Your task to perform on an android device: toggle pop-ups in chrome Image 0: 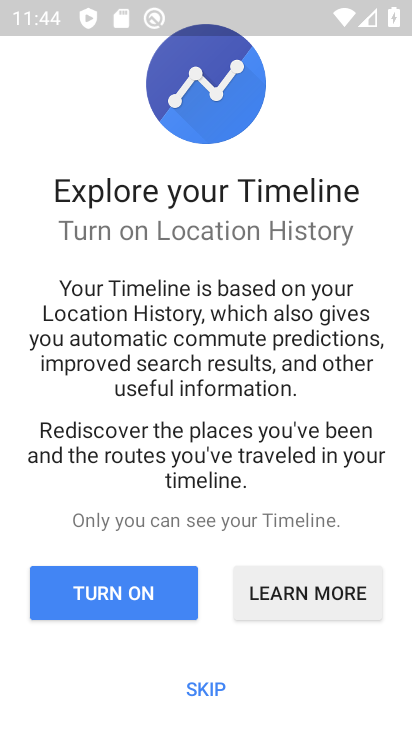
Step 0: press home button
Your task to perform on an android device: toggle pop-ups in chrome Image 1: 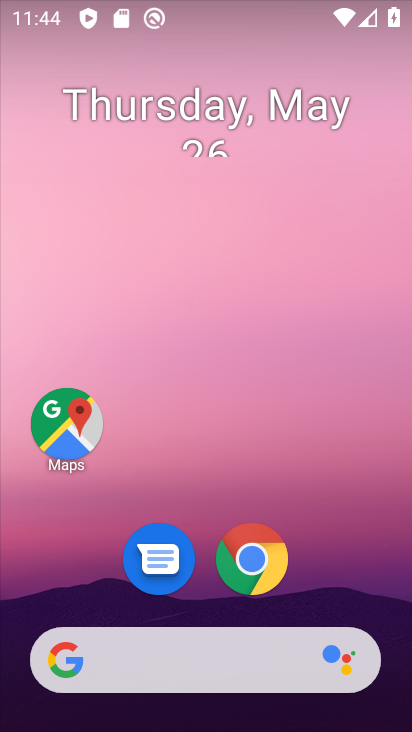
Step 1: click (244, 561)
Your task to perform on an android device: toggle pop-ups in chrome Image 2: 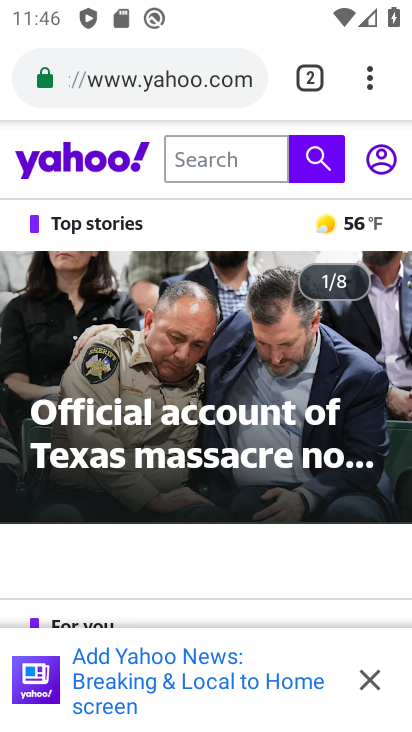
Step 2: click (369, 74)
Your task to perform on an android device: toggle pop-ups in chrome Image 3: 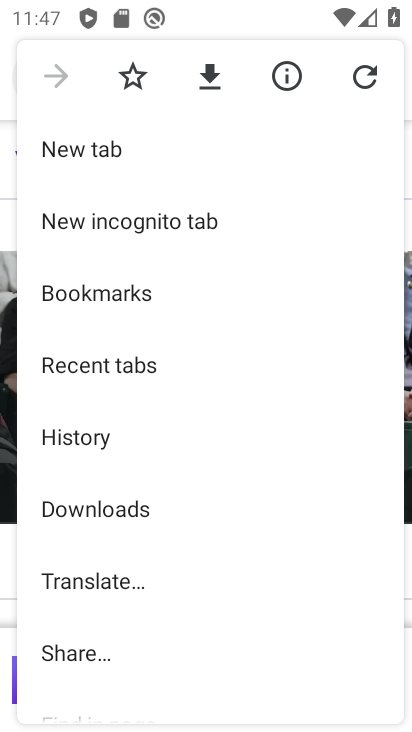
Step 3: drag from (146, 632) to (160, 256)
Your task to perform on an android device: toggle pop-ups in chrome Image 4: 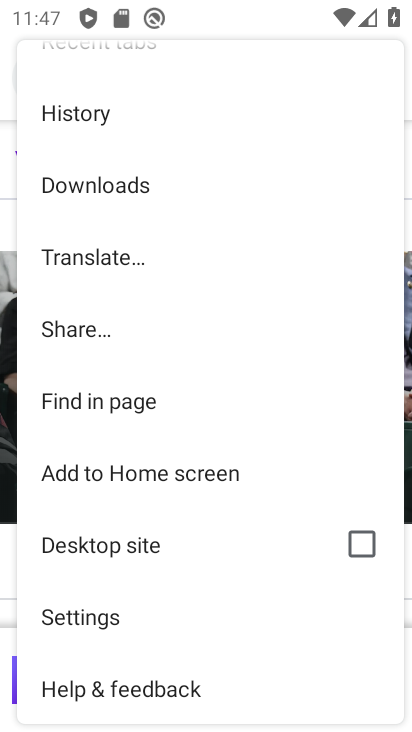
Step 4: drag from (119, 613) to (172, 223)
Your task to perform on an android device: toggle pop-ups in chrome Image 5: 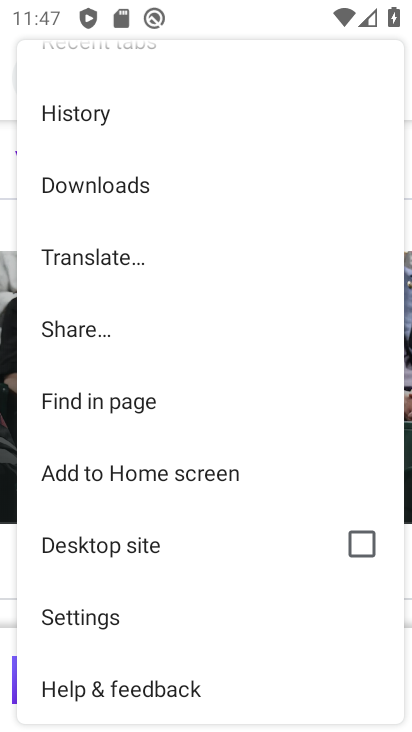
Step 5: click (125, 601)
Your task to perform on an android device: toggle pop-ups in chrome Image 6: 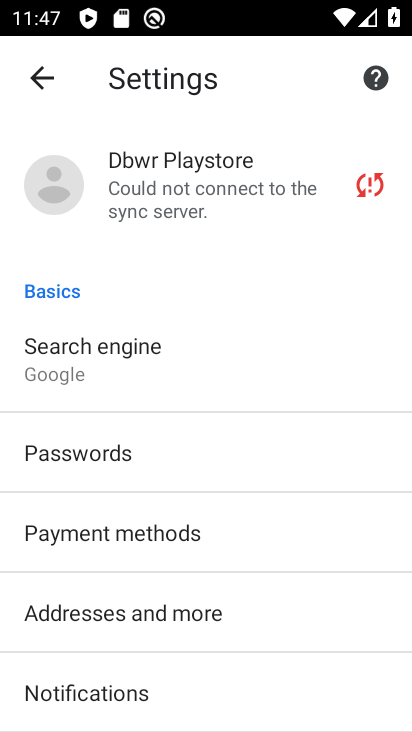
Step 6: drag from (258, 670) to (290, 260)
Your task to perform on an android device: toggle pop-ups in chrome Image 7: 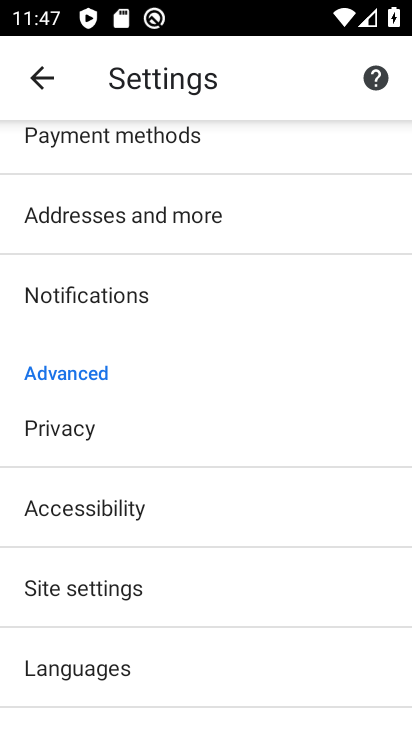
Step 7: click (170, 598)
Your task to perform on an android device: toggle pop-ups in chrome Image 8: 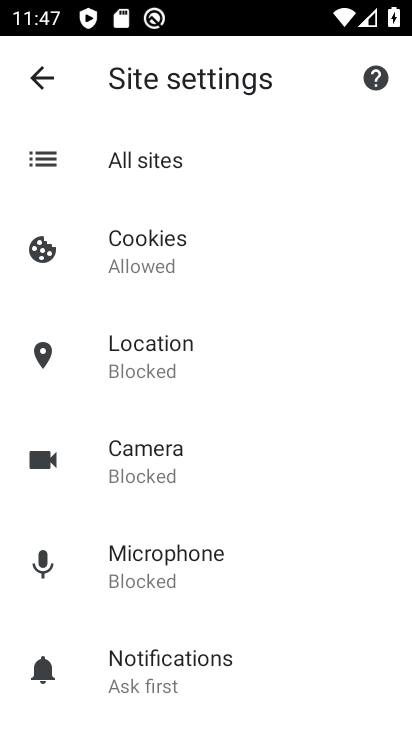
Step 8: drag from (247, 614) to (264, 205)
Your task to perform on an android device: toggle pop-ups in chrome Image 9: 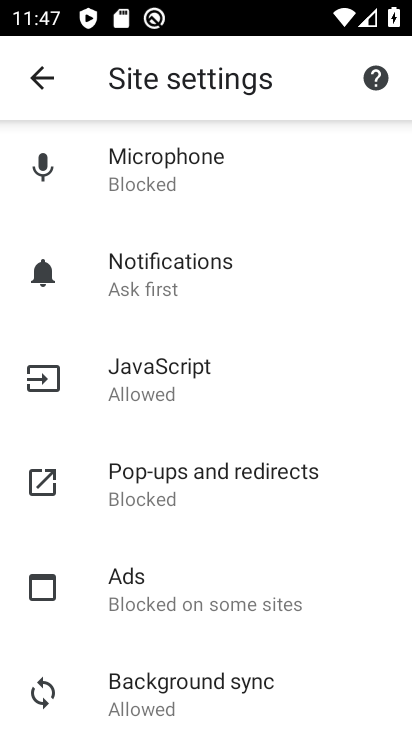
Step 9: click (204, 467)
Your task to perform on an android device: toggle pop-ups in chrome Image 10: 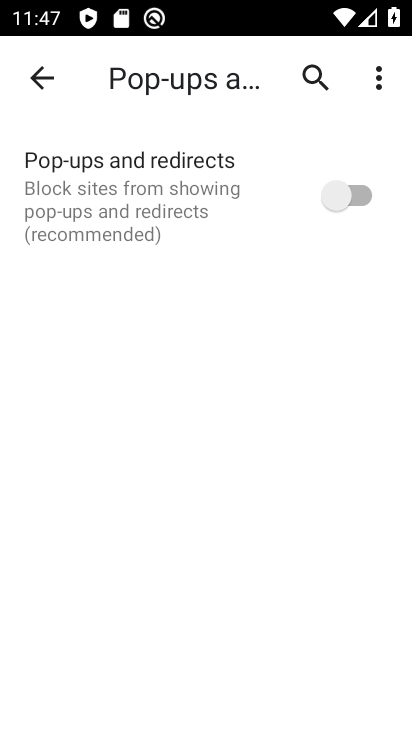
Step 10: click (345, 183)
Your task to perform on an android device: toggle pop-ups in chrome Image 11: 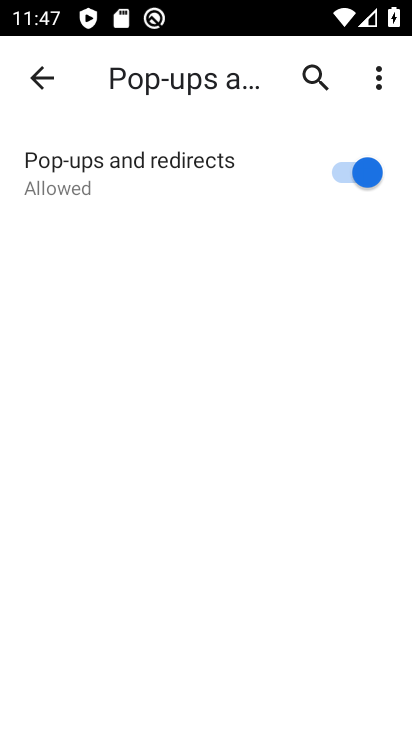
Step 11: task complete